Your task to perform on an android device: Open network settings Image 0: 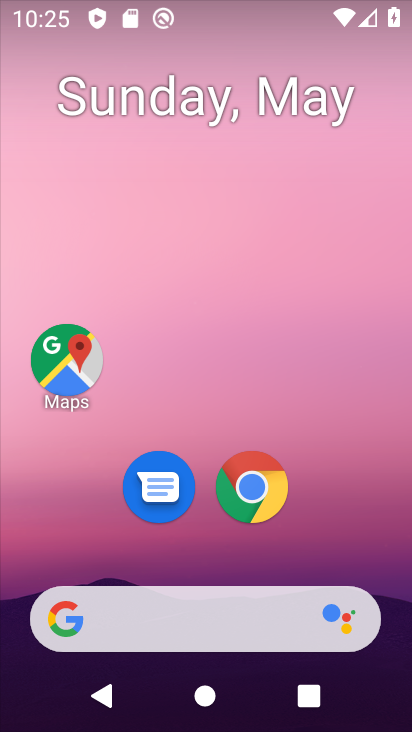
Step 0: drag from (135, 565) to (162, 246)
Your task to perform on an android device: Open network settings Image 1: 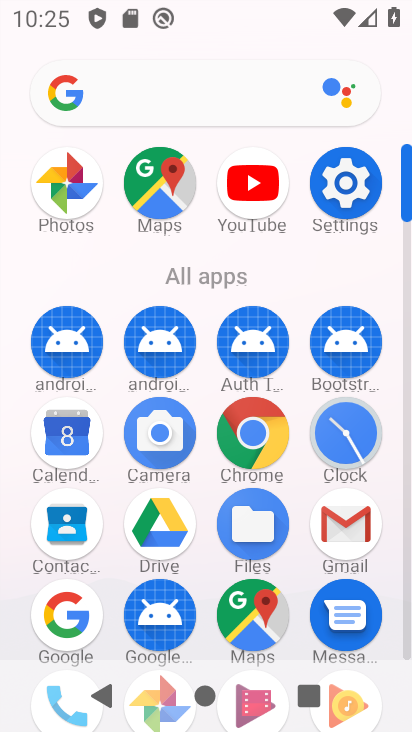
Step 1: click (347, 171)
Your task to perform on an android device: Open network settings Image 2: 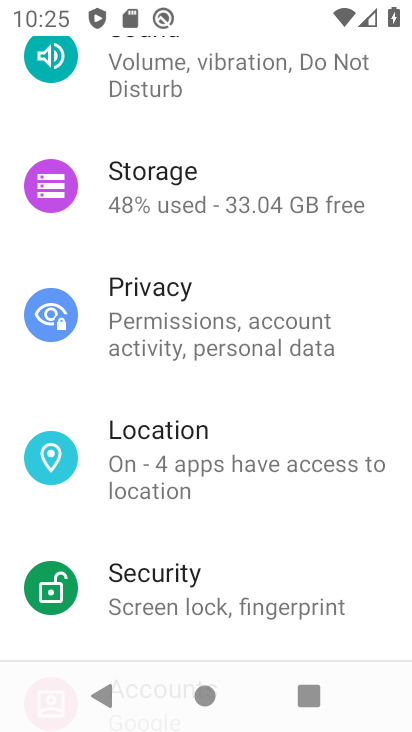
Step 2: drag from (309, 137) to (296, 581)
Your task to perform on an android device: Open network settings Image 3: 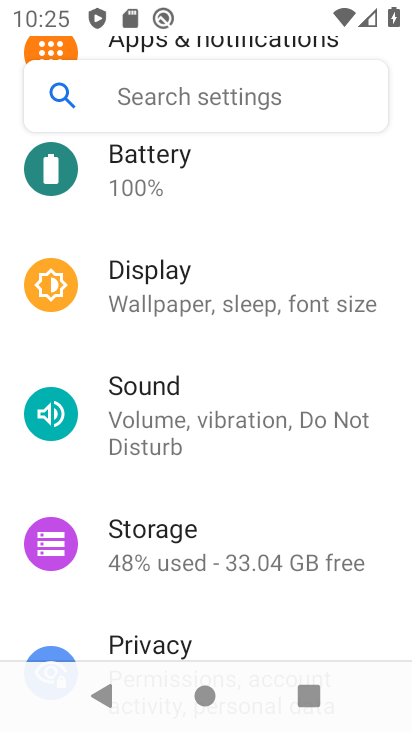
Step 3: drag from (298, 237) to (311, 570)
Your task to perform on an android device: Open network settings Image 4: 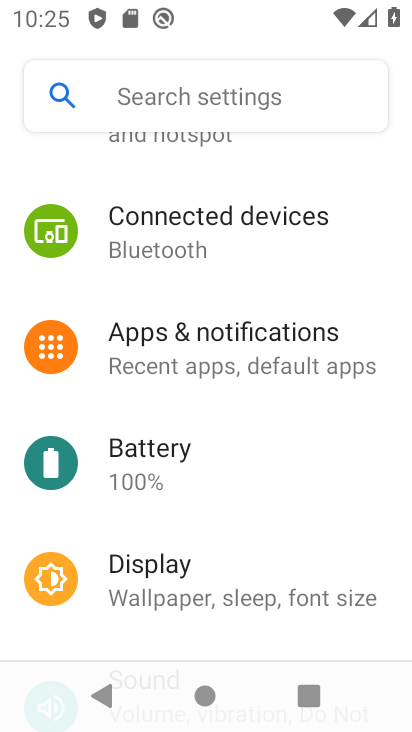
Step 4: drag from (330, 236) to (327, 414)
Your task to perform on an android device: Open network settings Image 5: 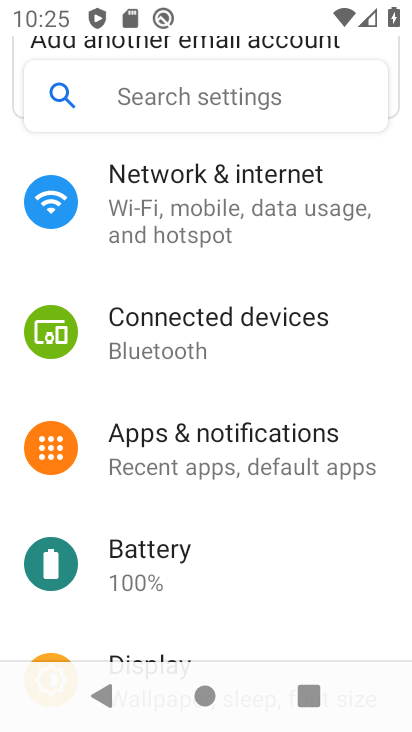
Step 5: drag from (343, 281) to (329, 451)
Your task to perform on an android device: Open network settings Image 6: 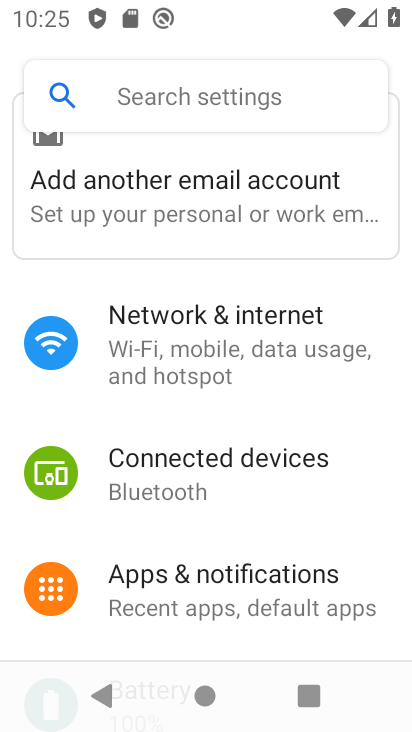
Step 6: click (272, 362)
Your task to perform on an android device: Open network settings Image 7: 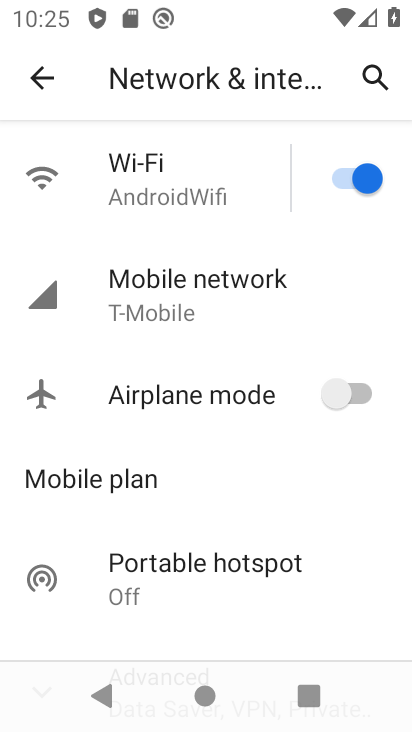
Step 7: click (272, 293)
Your task to perform on an android device: Open network settings Image 8: 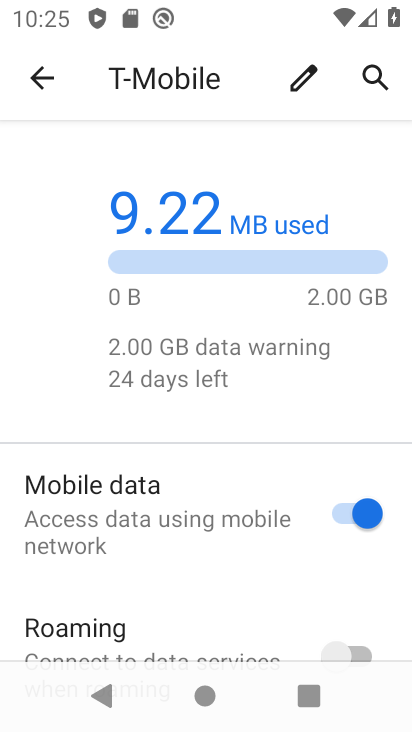
Step 8: task complete